Your task to perform on an android device: turn off notifications in google photos Image 0: 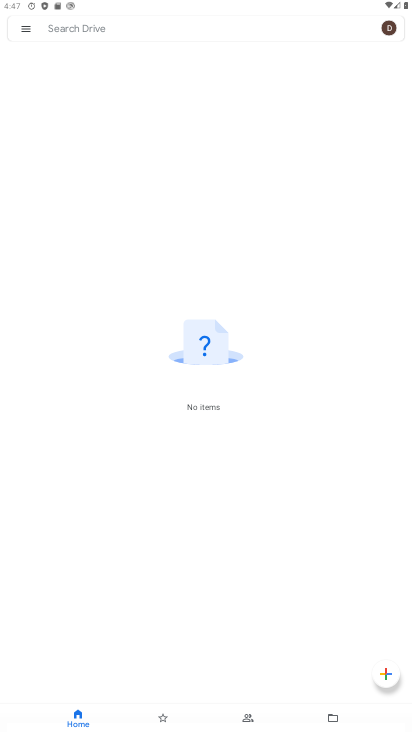
Step 0: press home button
Your task to perform on an android device: turn off notifications in google photos Image 1: 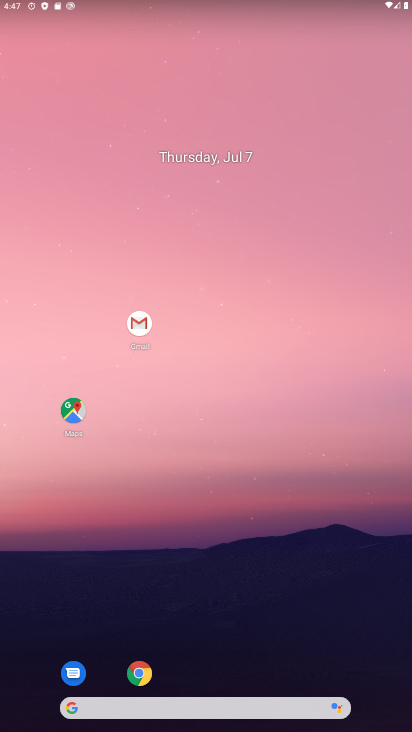
Step 1: drag from (232, 656) to (298, 215)
Your task to perform on an android device: turn off notifications in google photos Image 2: 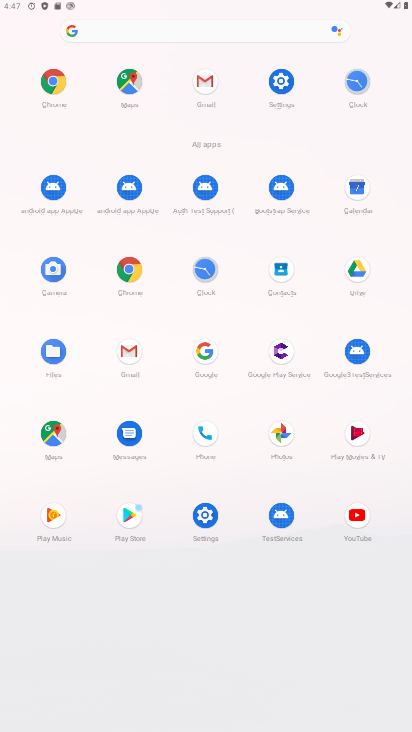
Step 2: click (277, 431)
Your task to perform on an android device: turn off notifications in google photos Image 3: 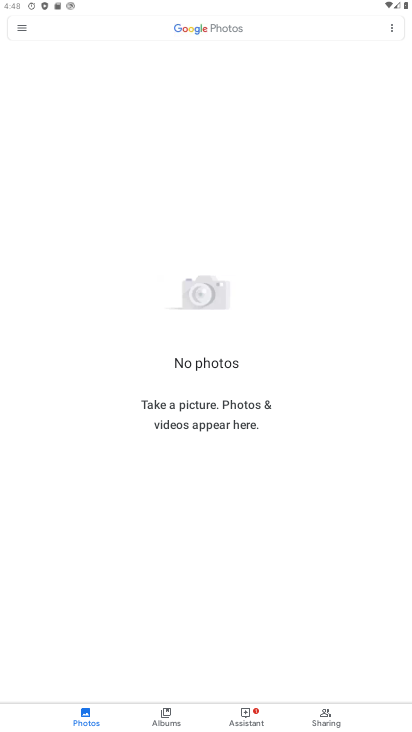
Step 3: click (17, 23)
Your task to perform on an android device: turn off notifications in google photos Image 4: 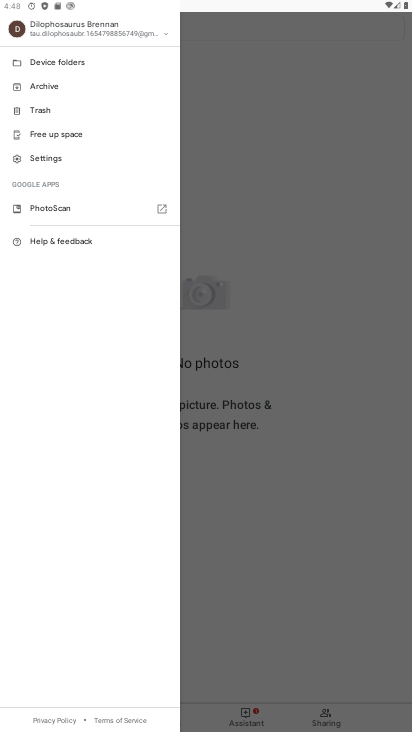
Step 4: click (65, 163)
Your task to perform on an android device: turn off notifications in google photos Image 5: 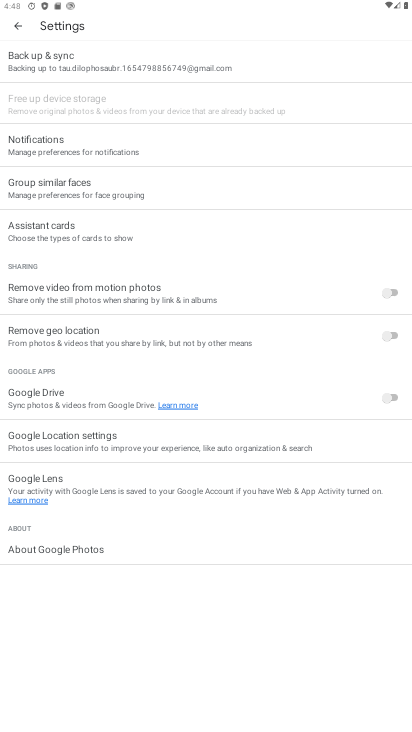
Step 5: click (106, 155)
Your task to perform on an android device: turn off notifications in google photos Image 6: 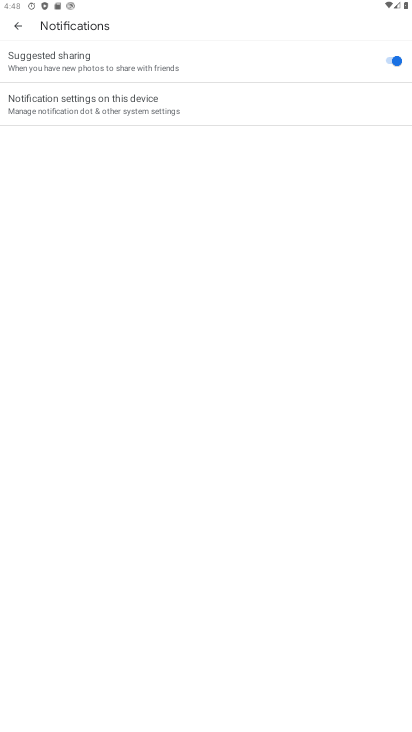
Step 6: click (387, 67)
Your task to perform on an android device: turn off notifications in google photos Image 7: 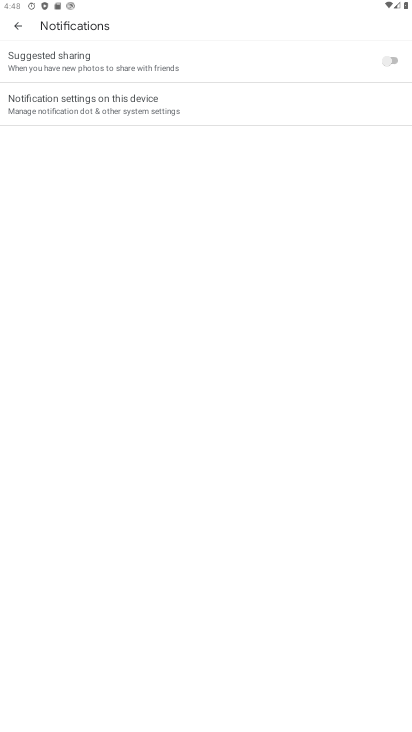
Step 7: task complete